Your task to perform on an android device: Go to privacy settings Image 0: 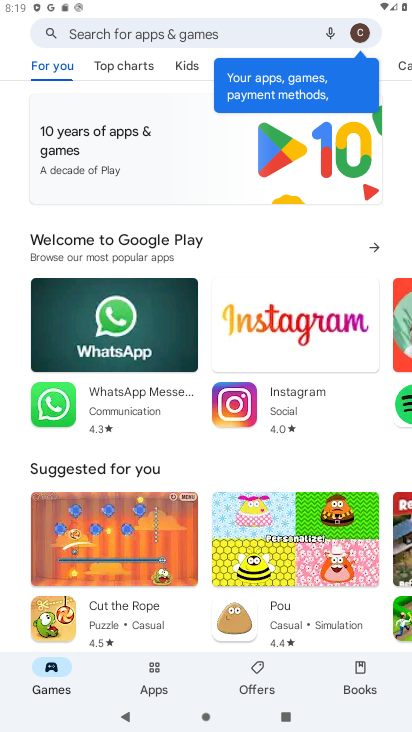
Step 0: press home button
Your task to perform on an android device: Go to privacy settings Image 1: 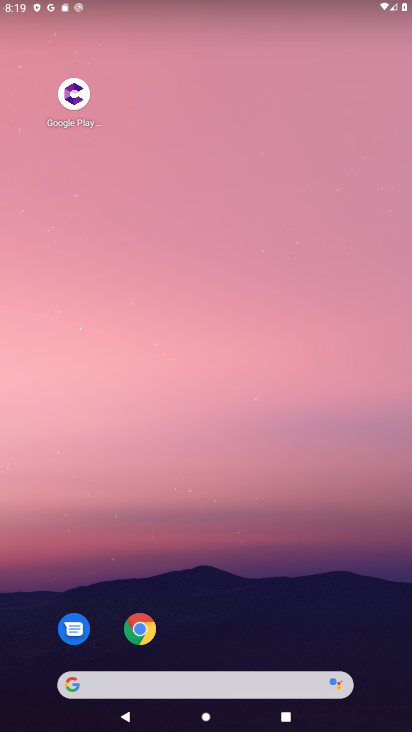
Step 1: drag from (284, 629) to (284, 143)
Your task to perform on an android device: Go to privacy settings Image 2: 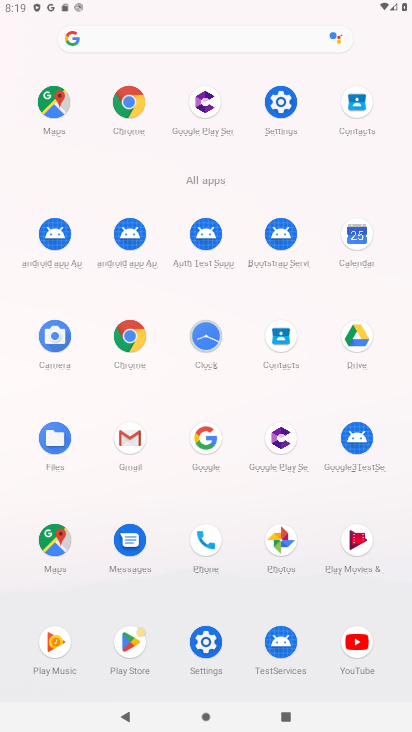
Step 2: click (282, 99)
Your task to perform on an android device: Go to privacy settings Image 3: 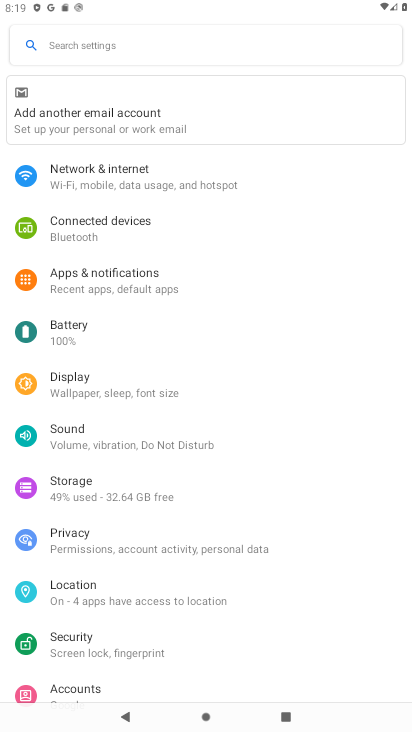
Step 3: click (91, 544)
Your task to perform on an android device: Go to privacy settings Image 4: 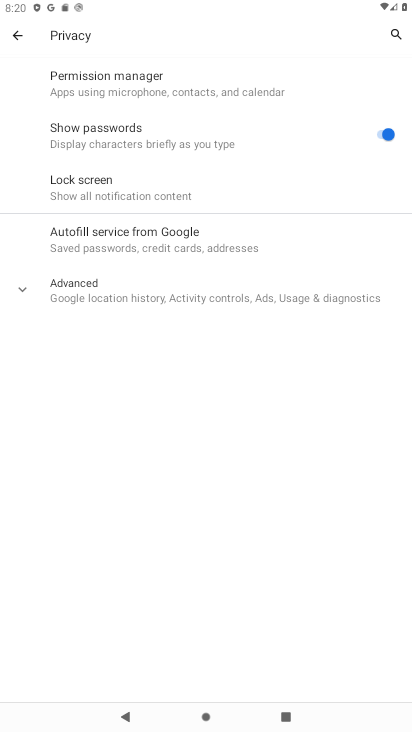
Step 4: task complete